Your task to perform on an android device: see tabs open on other devices in the chrome app Image 0: 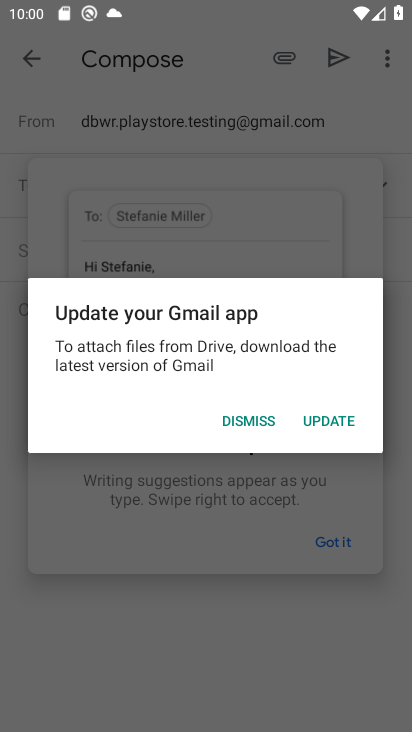
Step 0: press home button
Your task to perform on an android device: see tabs open on other devices in the chrome app Image 1: 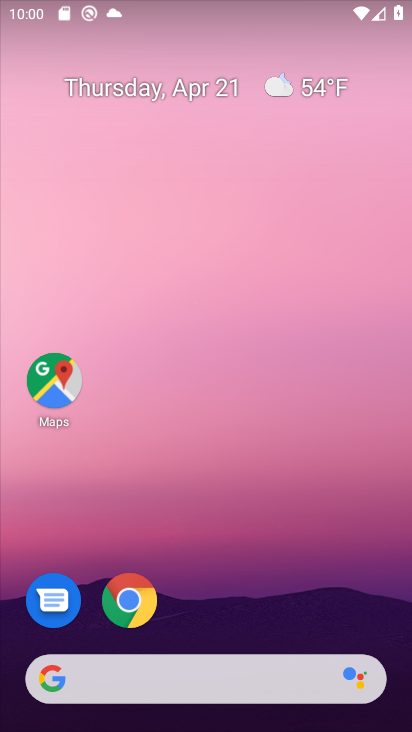
Step 1: click (124, 594)
Your task to perform on an android device: see tabs open on other devices in the chrome app Image 2: 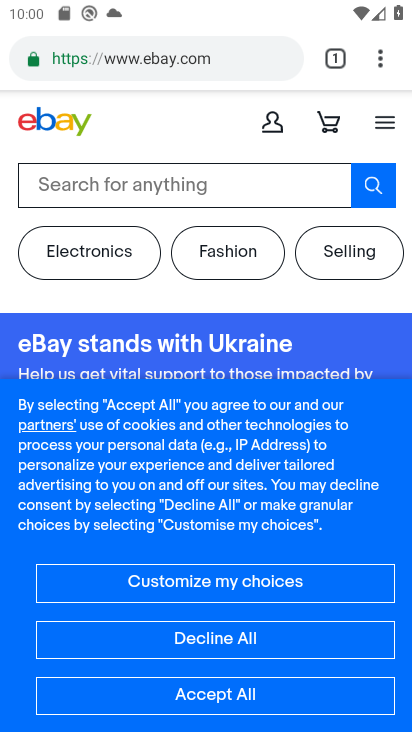
Step 2: click (375, 57)
Your task to perform on an android device: see tabs open on other devices in the chrome app Image 3: 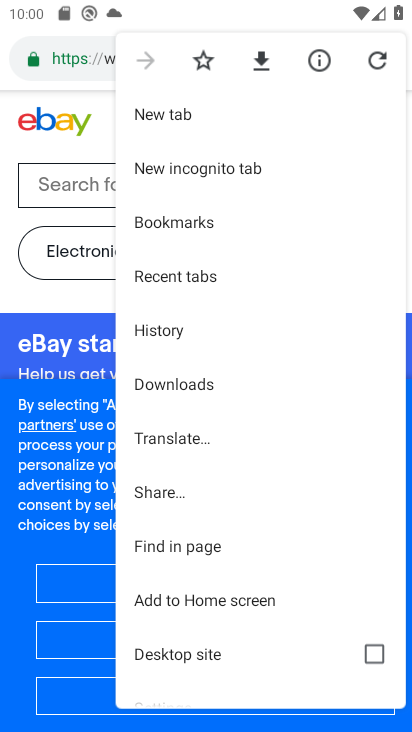
Step 3: click (171, 282)
Your task to perform on an android device: see tabs open on other devices in the chrome app Image 4: 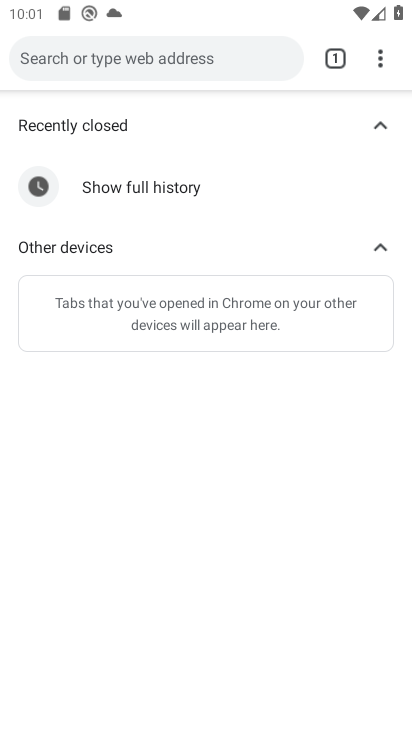
Step 4: task complete